Your task to perform on an android device: Open battery settings Image 0: 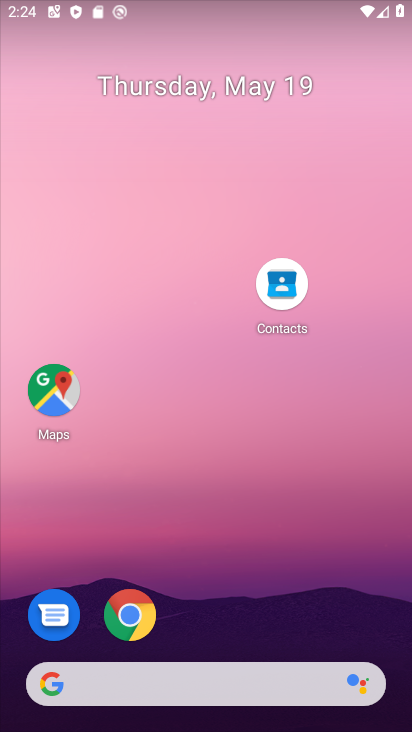
Step 0: drag from (285, 626) to (331, 194)
Your task to perform on an android device: Open battery settings Image 1: 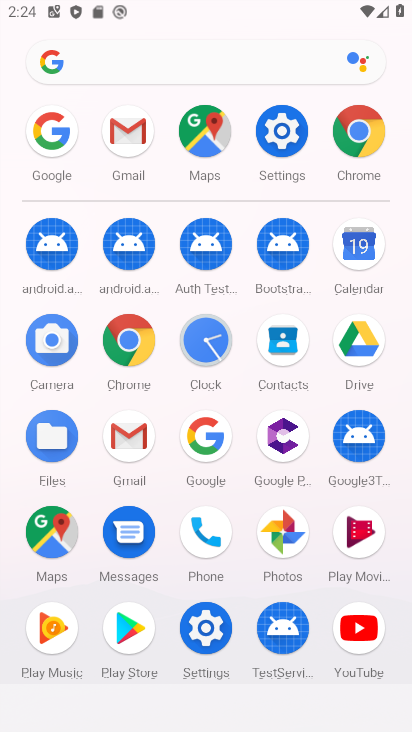
Step 1: click (292, 135)
Your task to perform on an android device: Open battery settings Image 2: 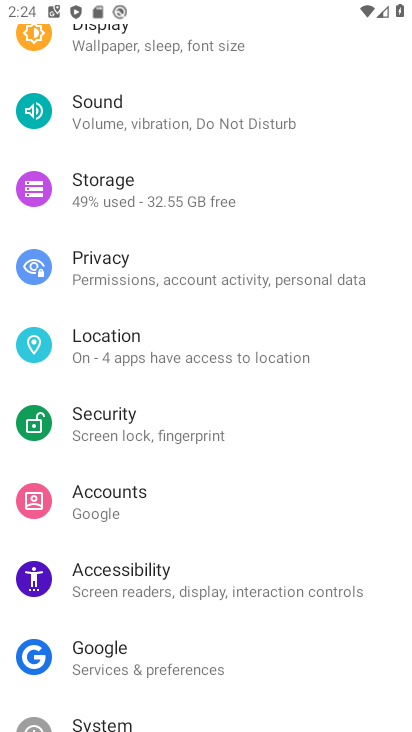
Step 2: drag from (192, 324) to (183, 707)
Your task to perform on an android device: Open battery settings Image 3: 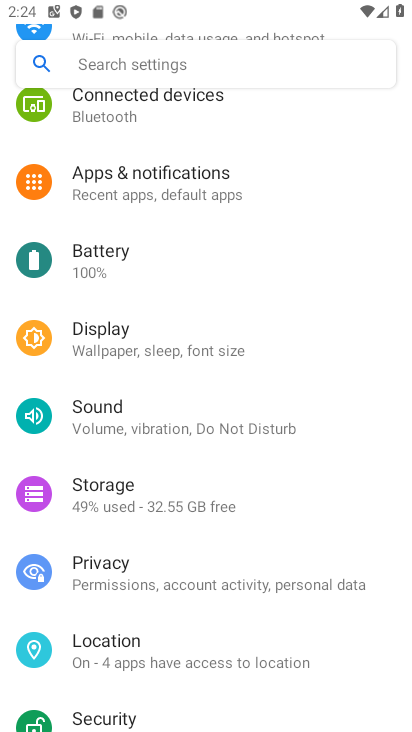
Step 3: click (171, 271)
Your task to perform on an android device: Open battery settings Image 4: 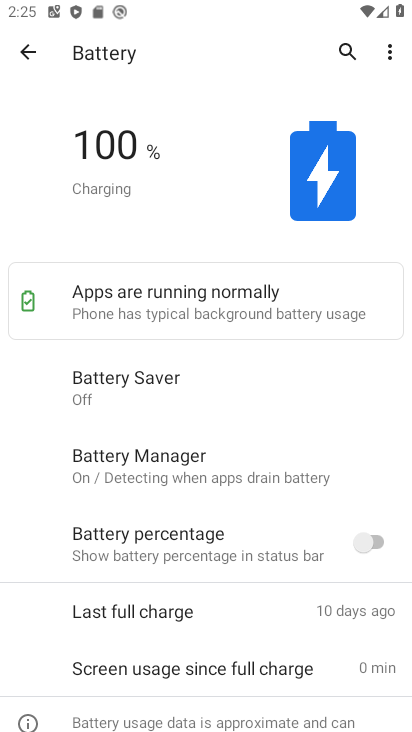
Step 4: task complete